Your task to perform on an android device: Open Google Chrome and click the shortcut for Amazon.com Image 0: 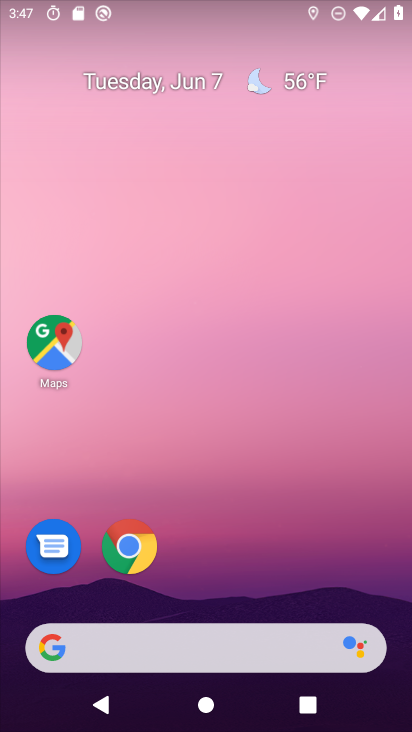
Step 0: drag from (235, 516) to (195, 44)
Your task to perform on an android device: Open Google Chrome and click the shortcut for Amazon.com Image 1: 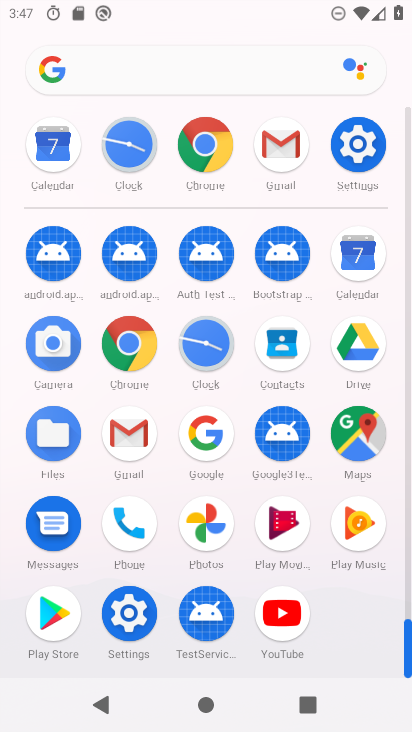
Step 1: click (214, 12)
Your task to perform on an android device: Open Google Chrome and click the shortcut for Amazon.com Image 2: 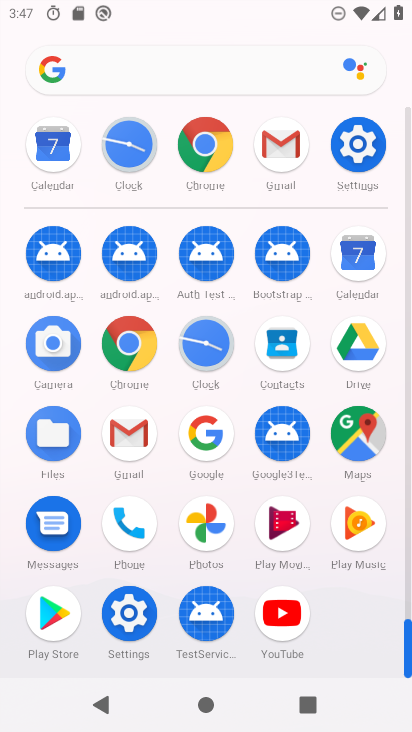
Step 2: drag from (242, 433) to (206, 19)
Your task to perform on an android device: Open Google Chrome and click the shortcut for Amazon.com Image 3: 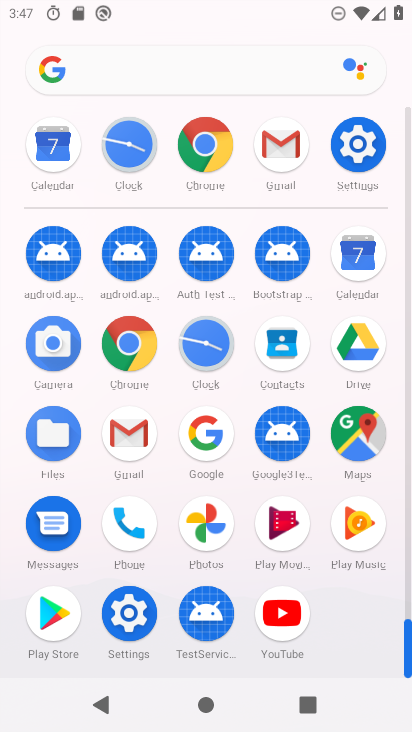
Step 3: click (201, 140)
Your task to perform on an android device: Open Google Chrome and click the shortcut for Amazon.com Image 4: 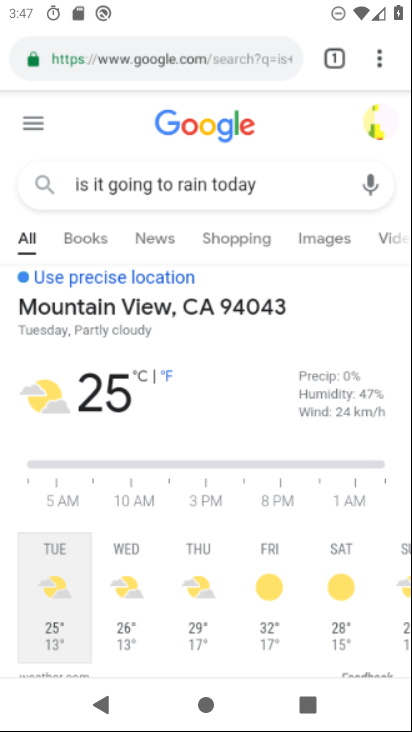
Step 4: click (207, 144)
Your task to perform on an android device: Open Google Chrome and click the shortcut for Amazon.com Image 5: 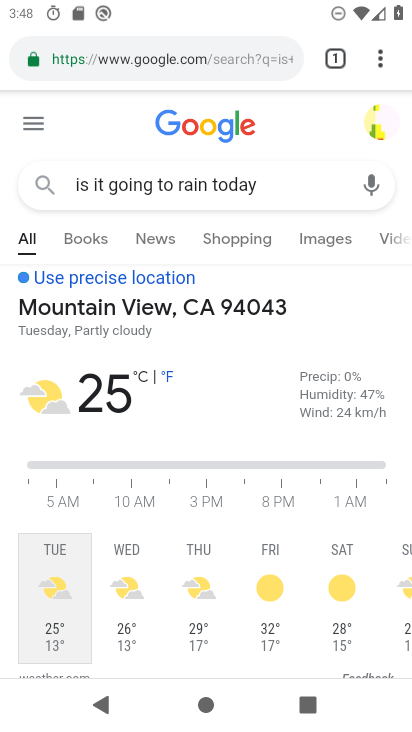
Step 5: click (175, 51)
Your task to perform on an android device: Open Google Chrome and click the shortcut for Amazon.com Image 6: 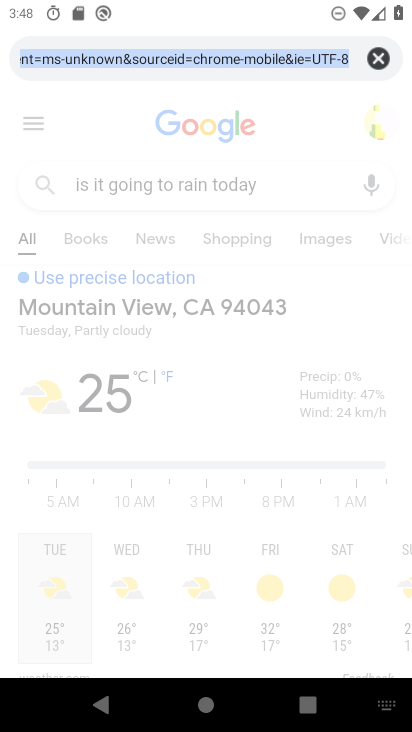
Step 6: click (380, 52)
Your task to perform on an android device: Open Google Chrome and click the shortcut for Amazon.com Image 7: 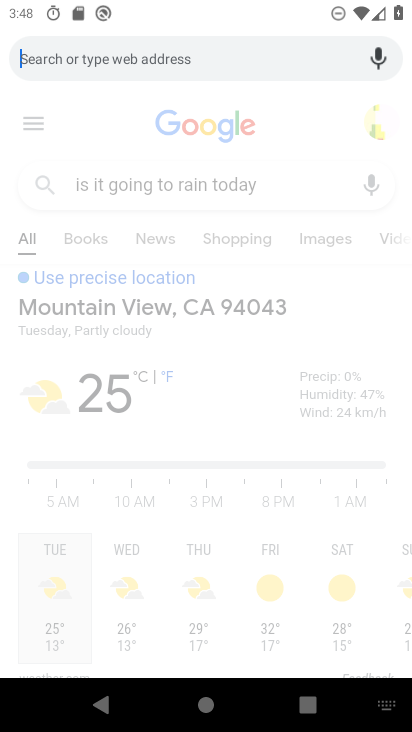
Step 7: type "Amazon.com"
Your task to perform on an android device: Open Google Chrome and click the shortcut for Amazon.com Image 8: 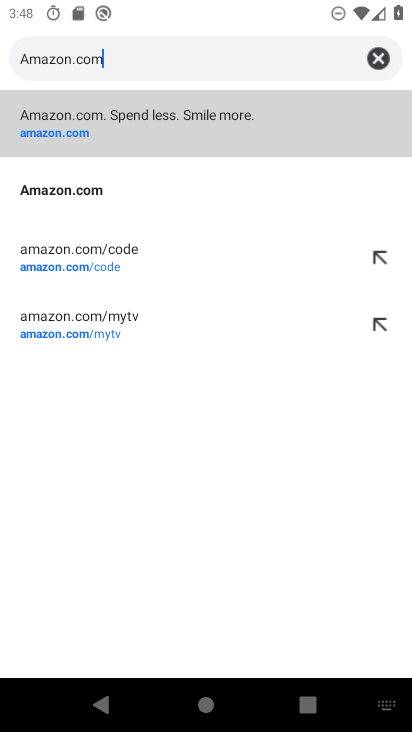
Step 8: type ""
Your task to perform on an android device: Open Google Chrome and click the shortcut for Amazon.com Image 9: 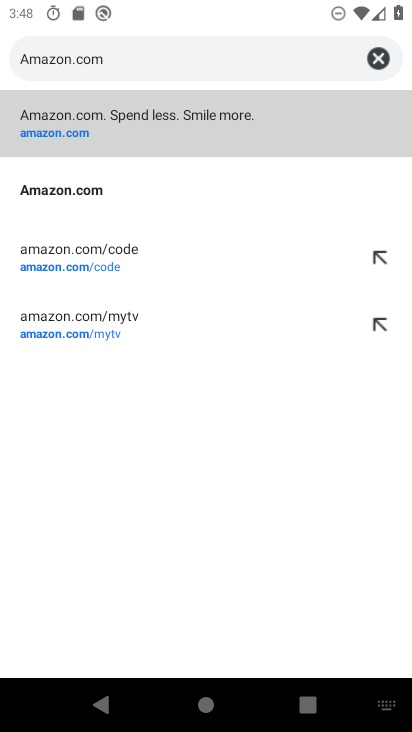
Step 9: click (131, 114)
Your task to perform on an android device: Open Google Chrome and click the shortcut for Amazon.com Image 10: 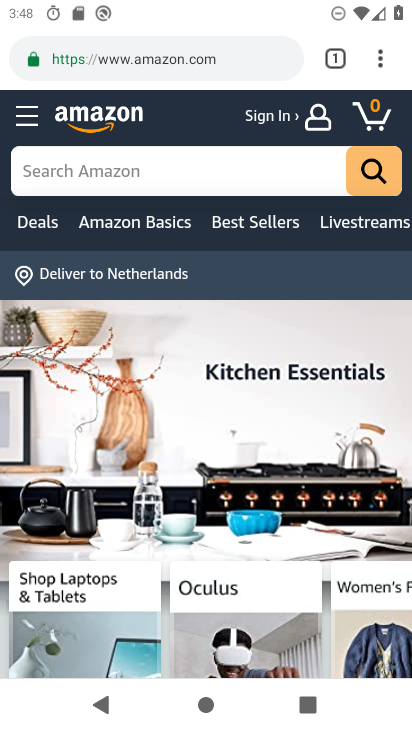
Step 10: drag from (381, 64) to (224, 463)
Your task to perform on an android device: Open Google Chrome and click the shortcut for Amazon.com Image 11: 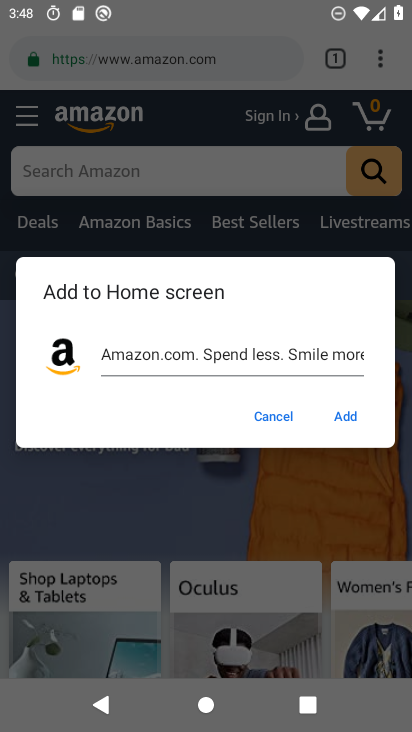
Step 11: click (348, 411)
Your task to perform on an android device: Open Google Chrome and click the shortcut for Amazon.com Image 12: 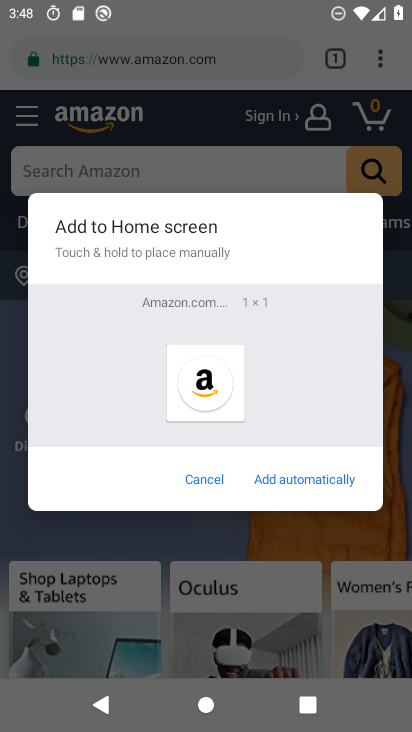
Step 12: click (317, 479)
Your task to perform on an android device: Open Google Chrome and click the shortcut for Amazon.com Image 13: 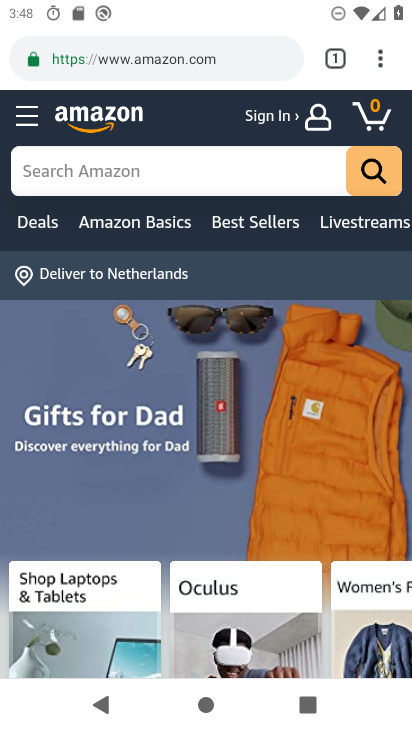
Step 13: task complete